Your task to perform on an android device: show emergency info Image 0: 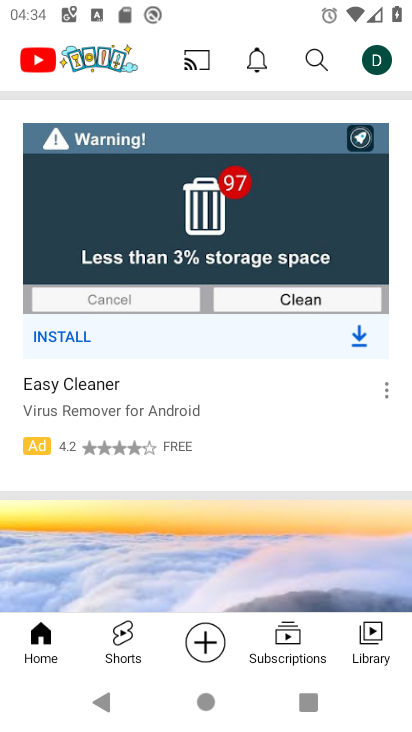
Step 0: press home button
Your task to perform on an android device: show emergency info Image 1: 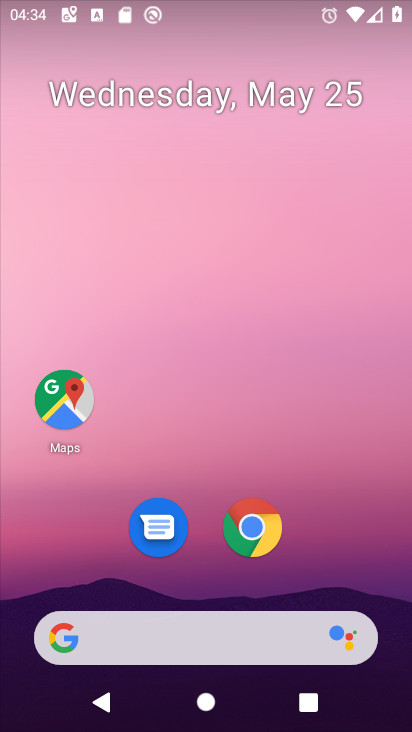
Step 1: drag from (221, 473) to (238, 35)
Your task to perform on an android device: show emergency info Image 2: 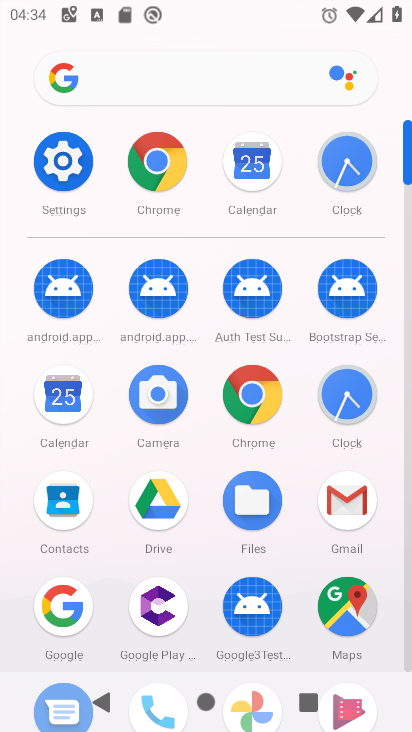
Step 2: click (88, 163)
Your task to perform on an android device: show emergency info Image 3: 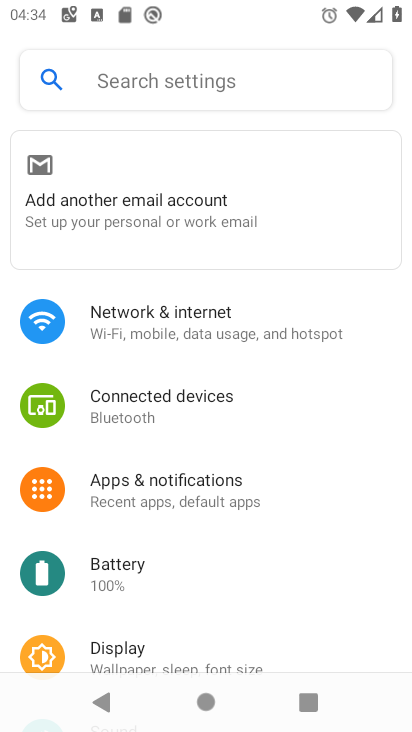
Step 3: drag from (302, 481) to (310, 105)
Your task to perform on an android device: show emergency info Image 4: 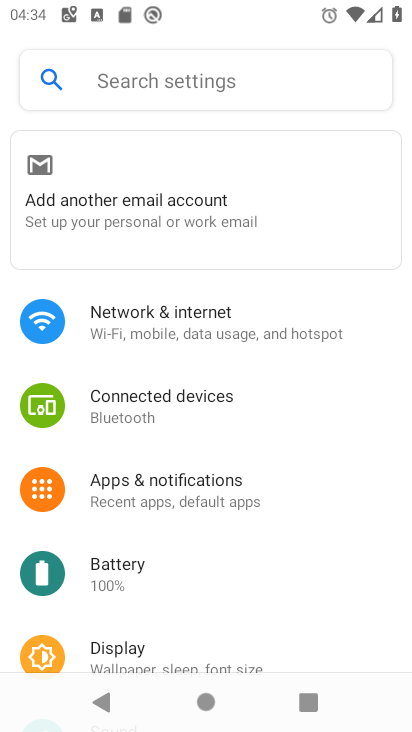
Step 4: drag from (281, 594) to (296, 121)
Your task to perform on an android device: show emergency info Image 5: 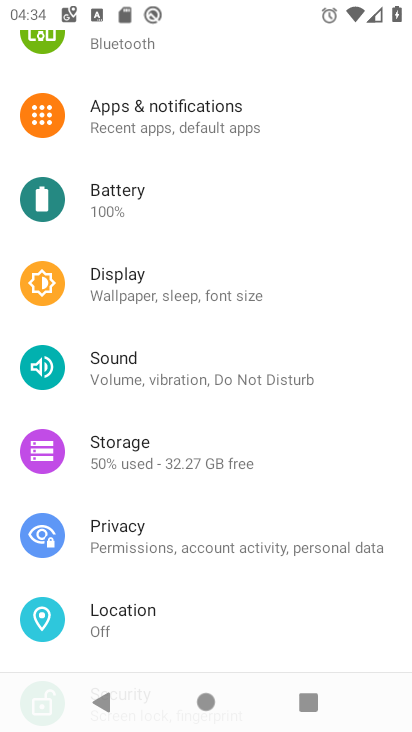
Step 5: drag from (241, 599) to (246, 216)
Your task to perform on an android device: show emergency info Image 6: 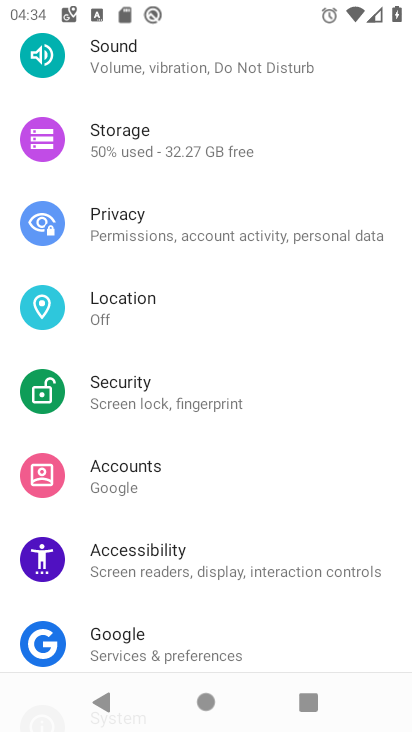
Step 6: drag from (232, 584) to (274, 210)
Your task to perform on an android device: show emergency info Image 7: 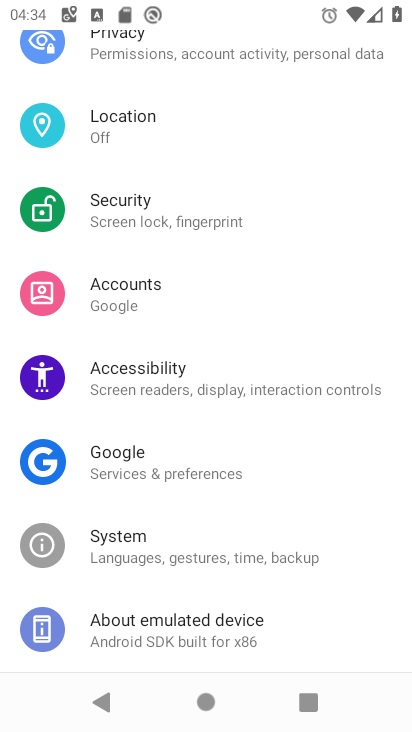
Step 7: click (202, 612)
Your task to perform on an android device: show emergency info Image 8: 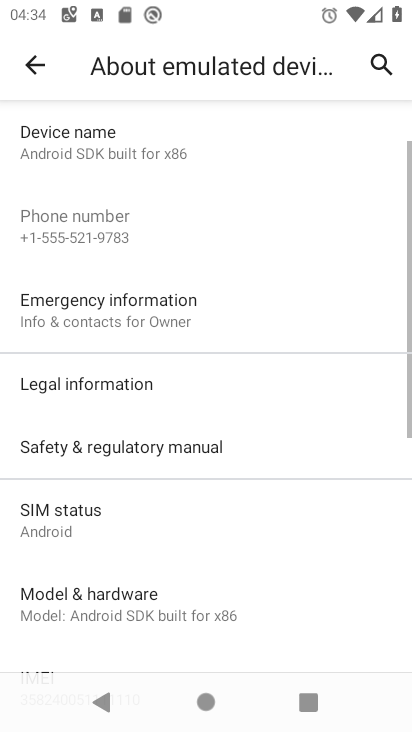
Step 8: click (184, 313)
Your task to perform on an android device: show emergency info Image 9: 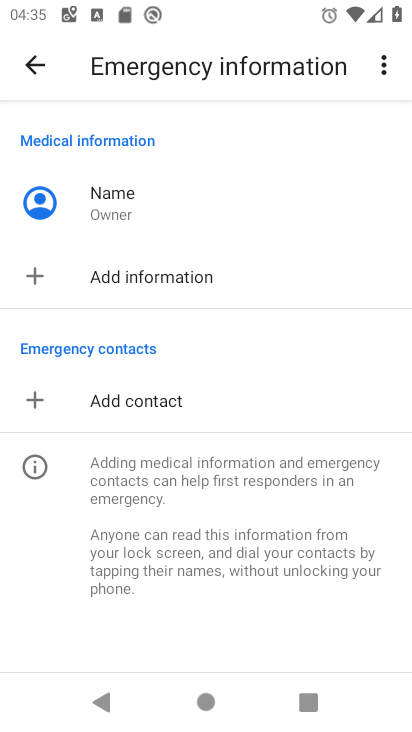
Step 9: task complete